Your task to perform on an android device: Open network settings Image 0: 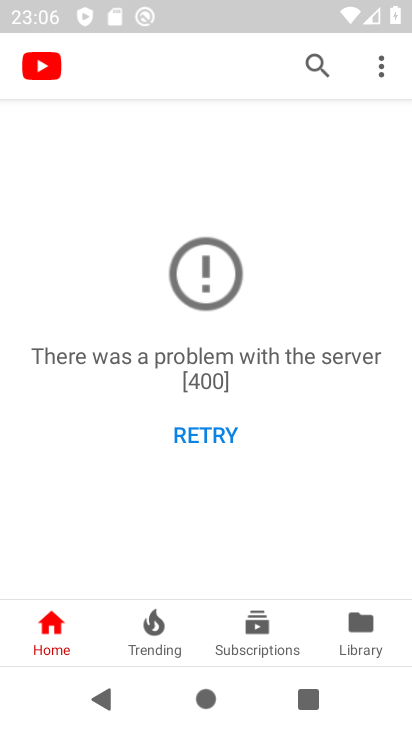
Step 0: press home button
Your task to perform on an android device: Open network settings Image 1: 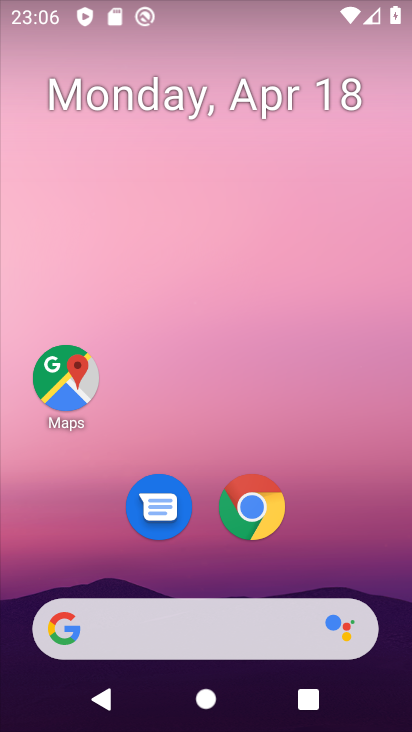
Step 1: drag from (346, 500) to (357, 92)
Your task to perform on an android device: Open network settings Image 2: 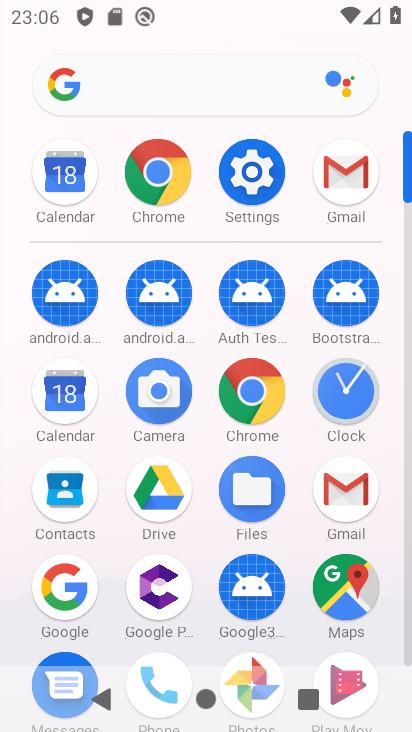
Step 2: click (257, 174)
Your task to perform on an android device: Open network settings Image 3: 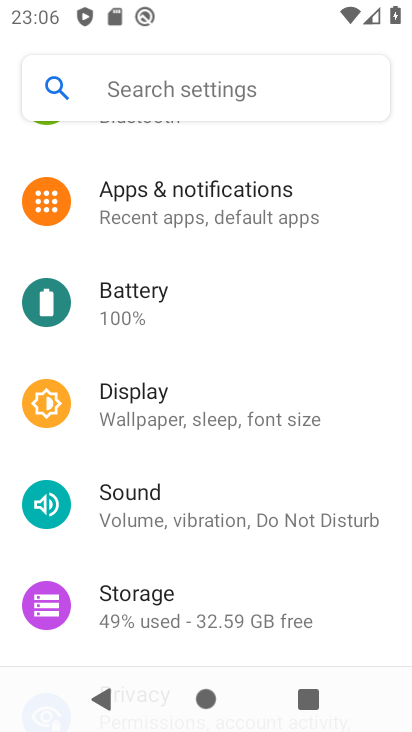
Step 3: drag from (242, 307) to (235, 542)
Your task to perform on an android device: Open network settings Image 4: 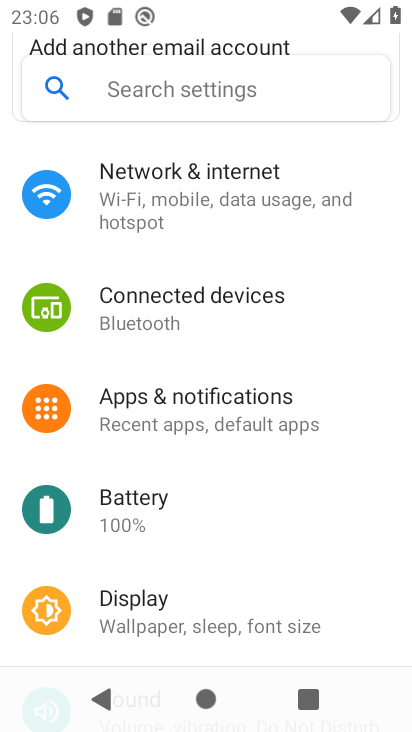
Step 4: click (248, 183)
Your task to perform on an android device: Open network settings Image 5: 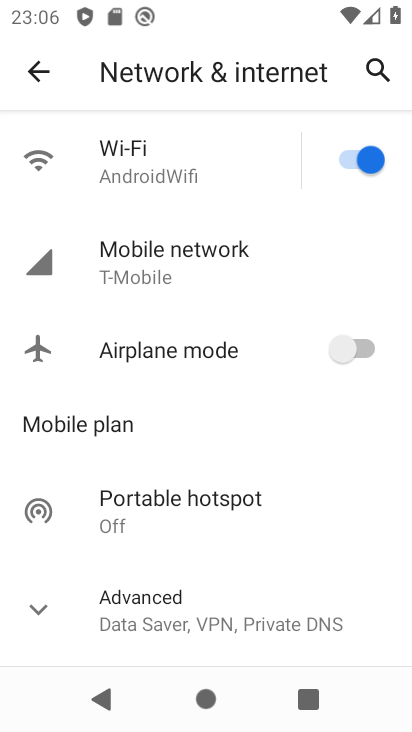
Step 5: task complete